Your task to perform on an android device: Open battery settings Image 0: 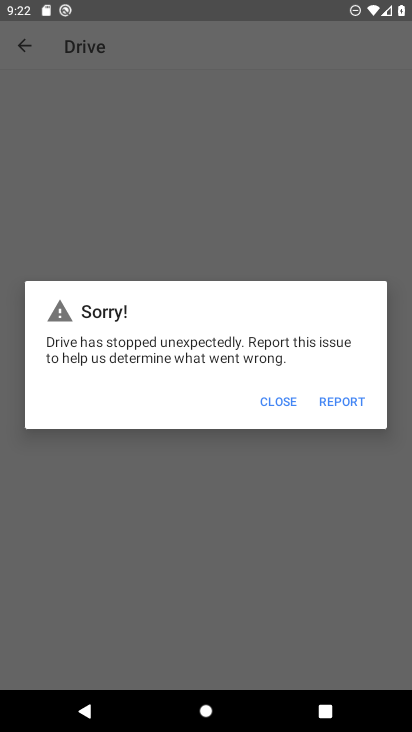
Step 0: drag from (194, 0) to (215, 476)
Your task to perform on an android device: Open battery settings Image 1: 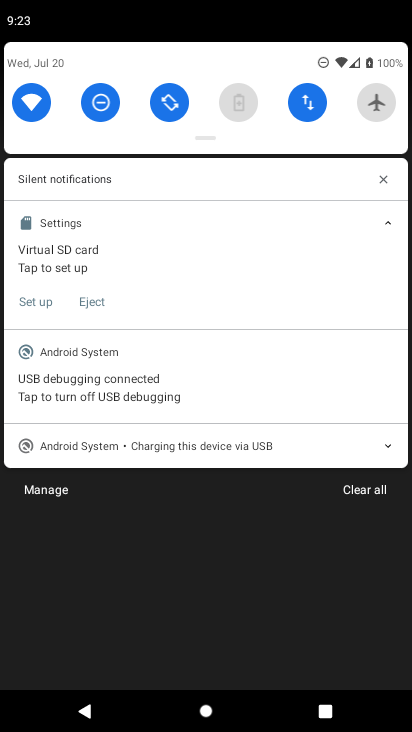
Step 1: click (236, 107)
Your task to perform on an android device: Open battery settings Image 2: 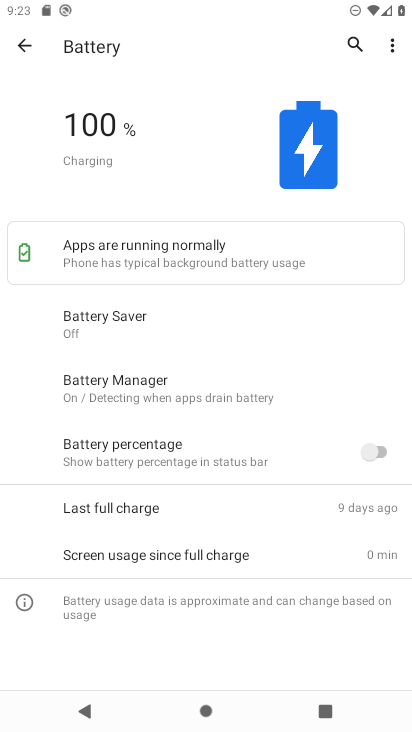
Step 2: task complete